Your task to perform on an android device: open device folders in google photos Image 0: 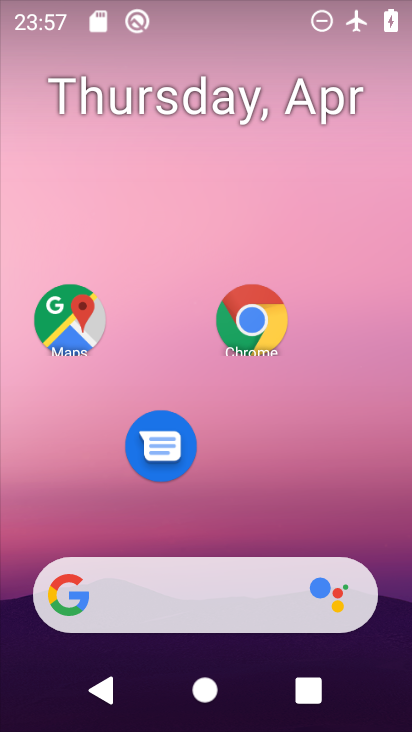
Step 0: drag from (232, 509) to (257, 153)
Your task to perform on an android device: open device folders in google photos Image 1: 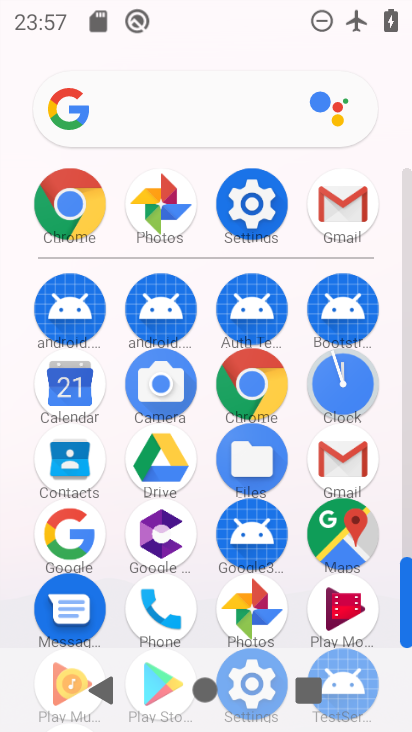
Step 1: click (247, 614)
Your task to perform on an android device: open device folders in google photos Image 2: 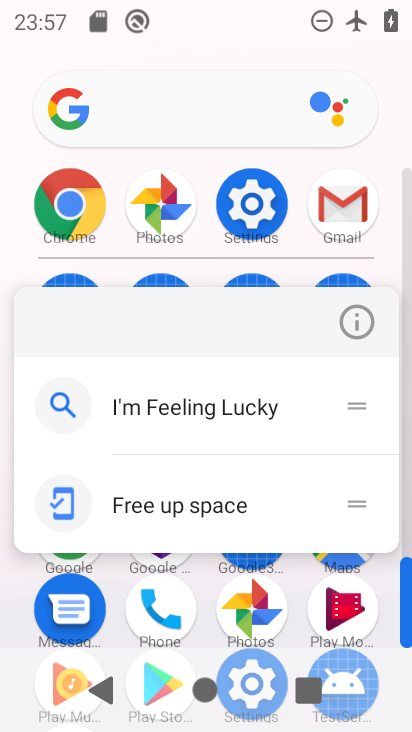
Step 2: click (361, 323)
Your task to perform on an android device: open device folders in google photos Image 3: 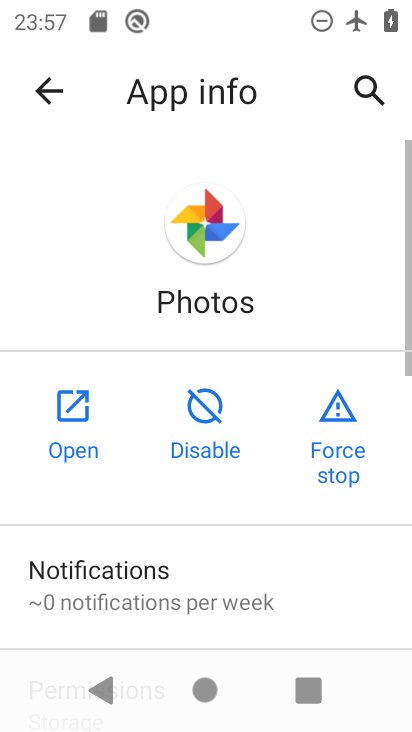
Step 3: click (40, 426)
Your task to perform on an android device: open device folders in google photos Image 4: 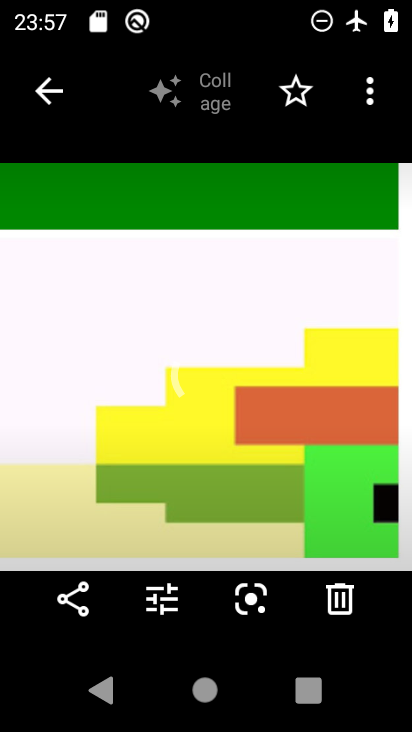
Step 4: drag from (291, 485) to (90, 487)
Your task to perform on an android device: open device folders in google photos Image 5: 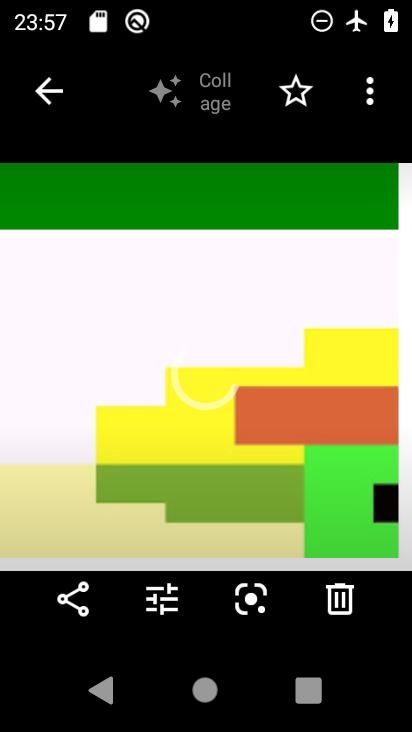
Step 5: drag from (333, 433) to (107, 411)
Your task to perform on an android device: open device folders in google photos Image 6: 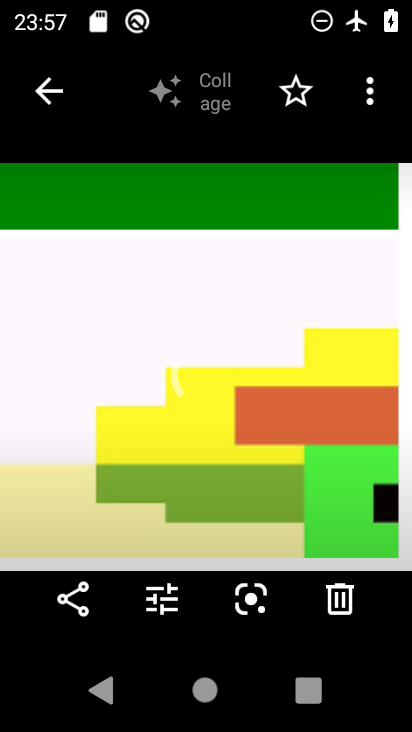
Step 6: drag from (273, 450) to (3, 426)
Your task to perform on an android device: open device folders in google photos Image 7: 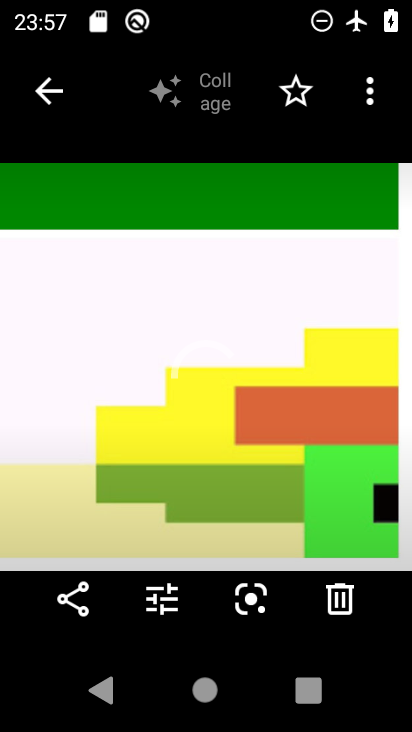
Step 7: drag from (217, 409) to (46, 447)
Your task to perform on an android device: open device folders in google photos Image 8: 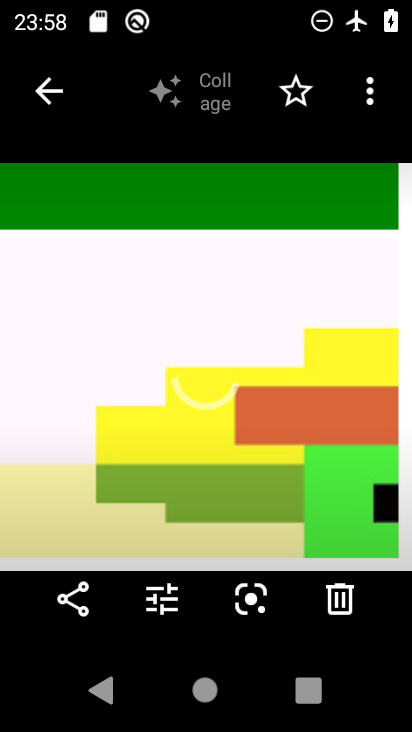
Step 8: drag from (301, 441) to (94, 397)
Your task to perform on an android device: open device folders in google photos Image 9: 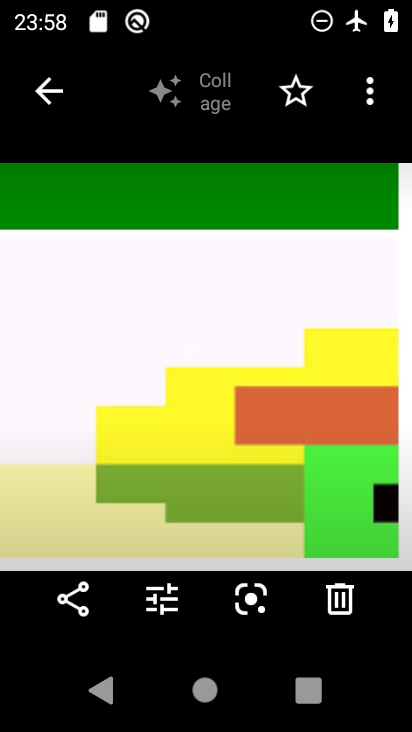
Step 9: drag from (353, 449) to (36, 439)
Your task to perform on an android device: open device folders in google photos Image 10: 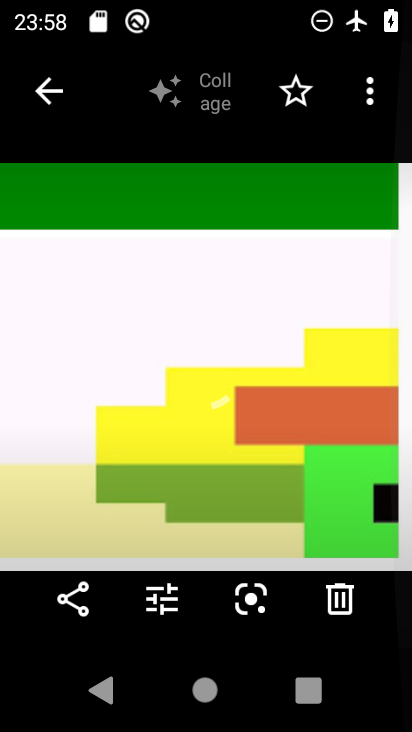
Step 10: click (42, 96)
Your task to perform on an android device: open device folders in google photos Image 11: 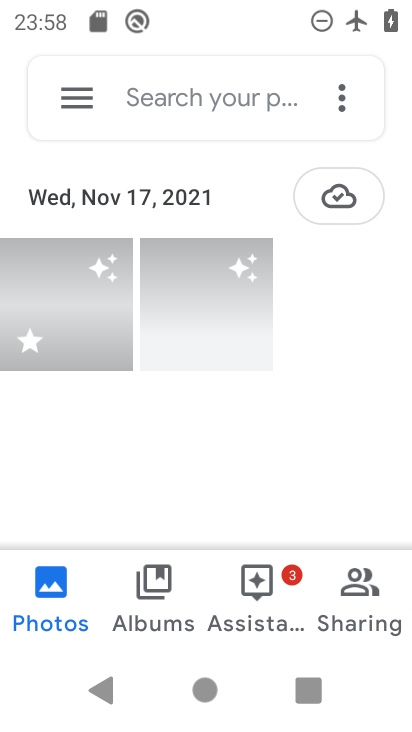
Step 11: click (60, 97)
Your task to perform on an android device: open device folders in google photos Image 12: 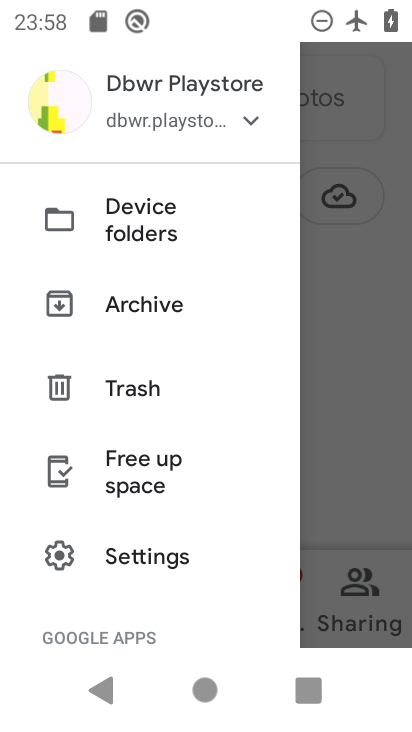
Step 12: click (147, 220)
Your task to perform on an android device: open device folders in google photos Image 13: 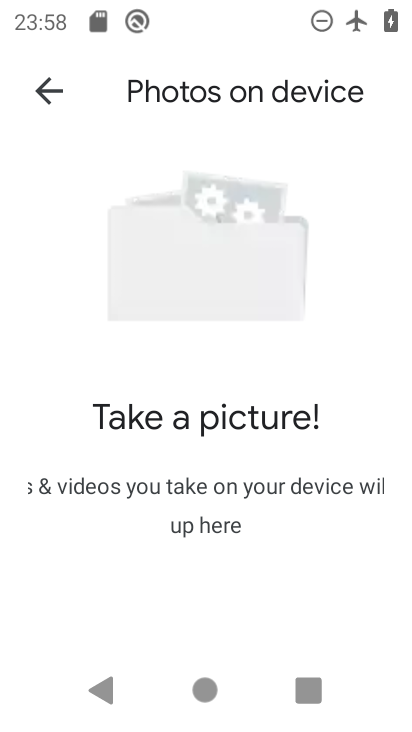
Step 13: task complete